Your task to perform on an android device: turn on airplane mode Image 0: 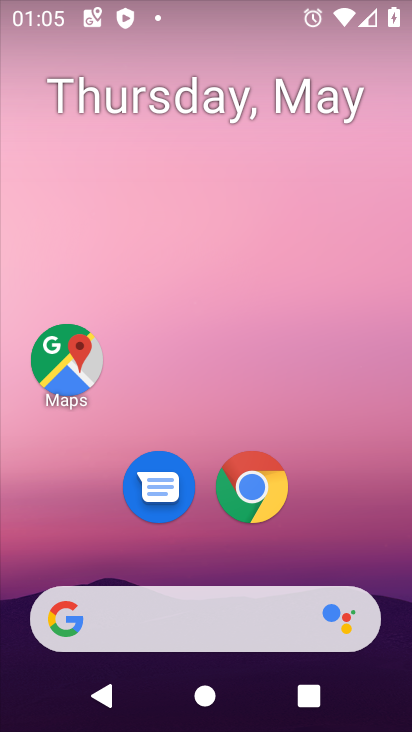
Step 0: drag from (349, 513) to (305, 15)
Your task to perform on an android device: turn on airplane mode Image 1: 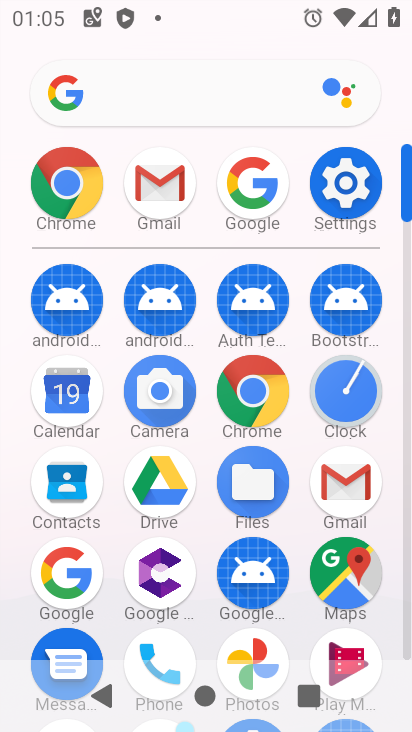
Step 1: click (344, 219)
Your task to perform on an android device: turn on airplane mode Image 2: 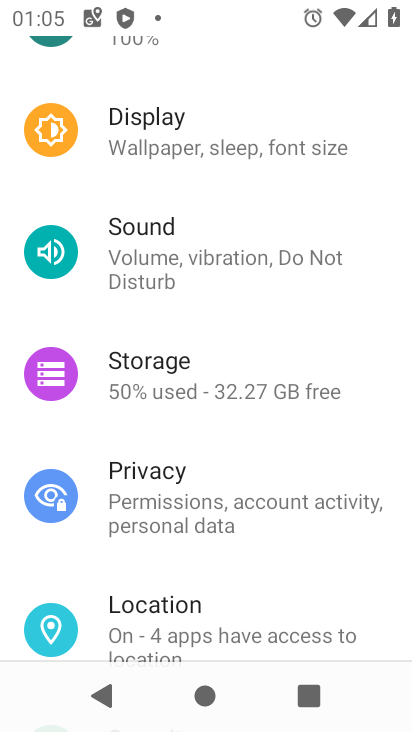
Step 2: drag from (212, 114) to (231, 547)
Your task to perform on an android device: turn on airplane mode Image 3: 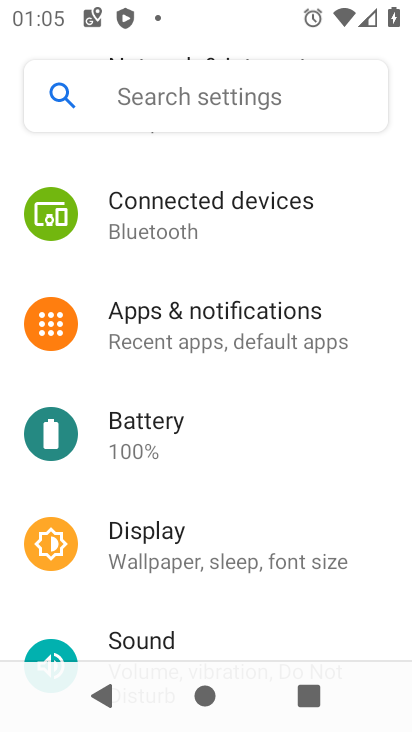
Step 3: drag from (225, 228) to (224, 504)
Your task to perform on an android device: turn on airplane mode Image 4: 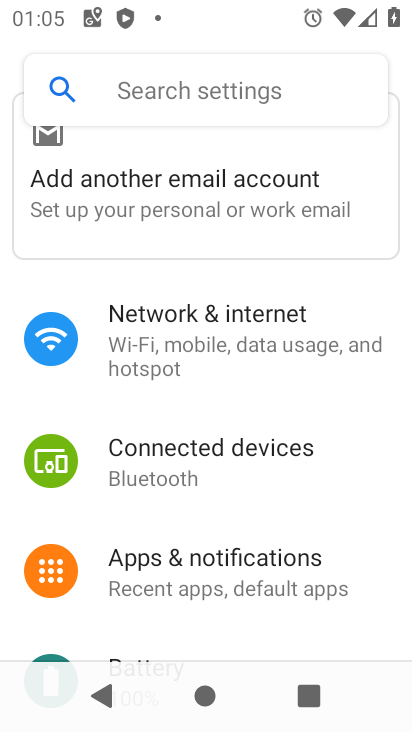
Step 4: click (173, 345)
Your task to perform on an android device: turn on airplane mode Image 5: 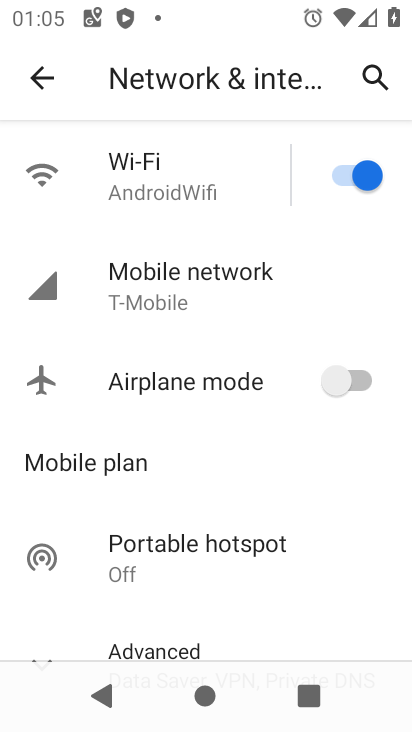
Step 5: click (344, 372)
Your task to perform on an android device: turn on airplane mode Image 6: 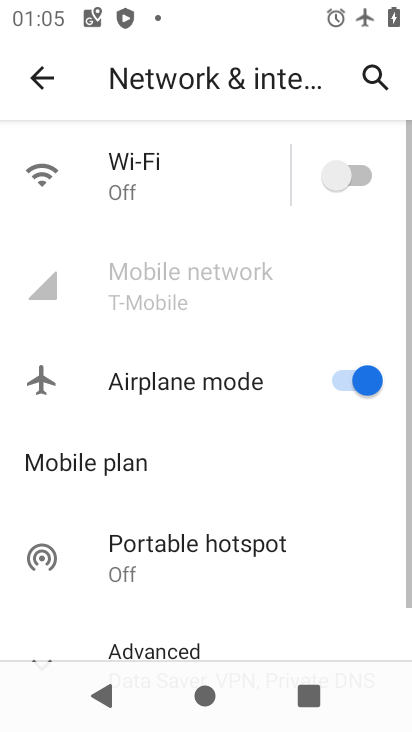
Step 6: task complete